Your task to perform on an android device: Go to Amazon Image 0: 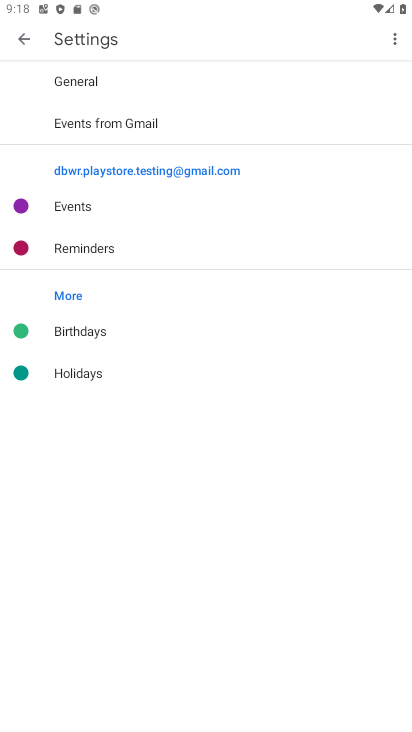
Step 0: press home button
Your task to perform on an android device: Go to Amazon Image 1: 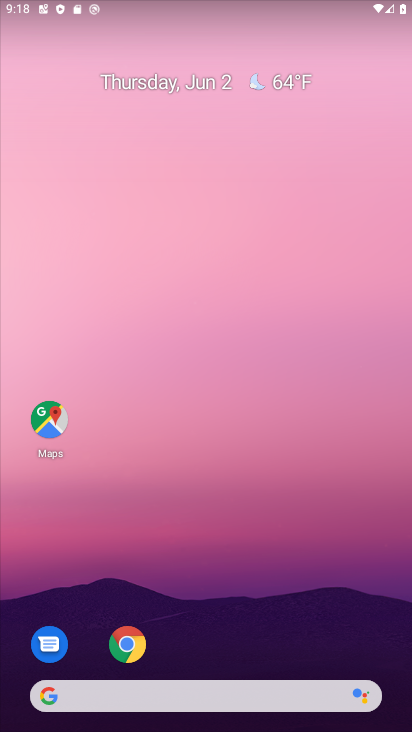
Step 1: click (133, 648)
Your task to perform on an android device: Go to Amazon Image 2: 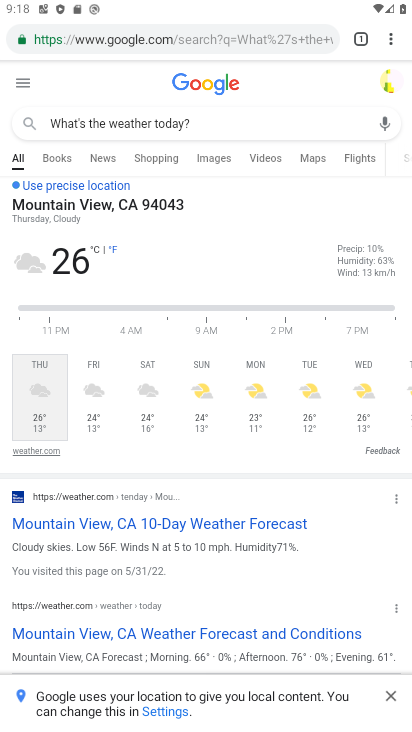
Step 2: drag from (384, 40) to (272, 68)
Your task to perform on an android device: Go to Amazon Image 3: 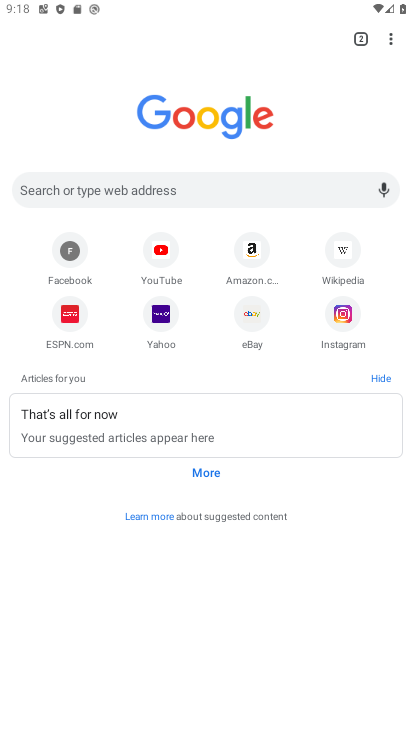
Step 3: click (255, 250)
Your task to perform on an android device: Go to Amazon Image 4: 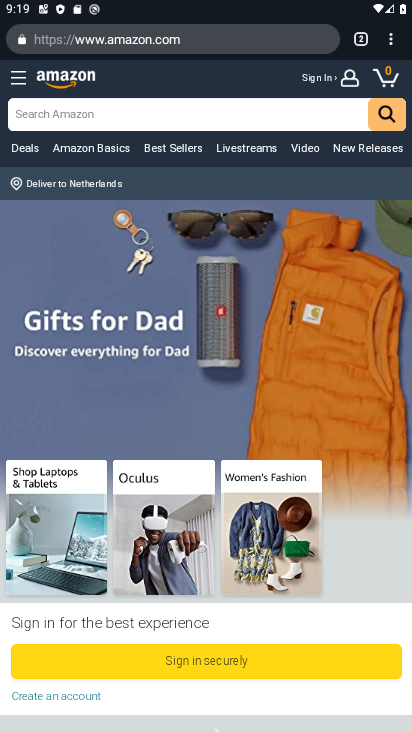
Step 4: task complete